Your task to perform on an android device: Search for Mexican restaurants on Maps Image 0: 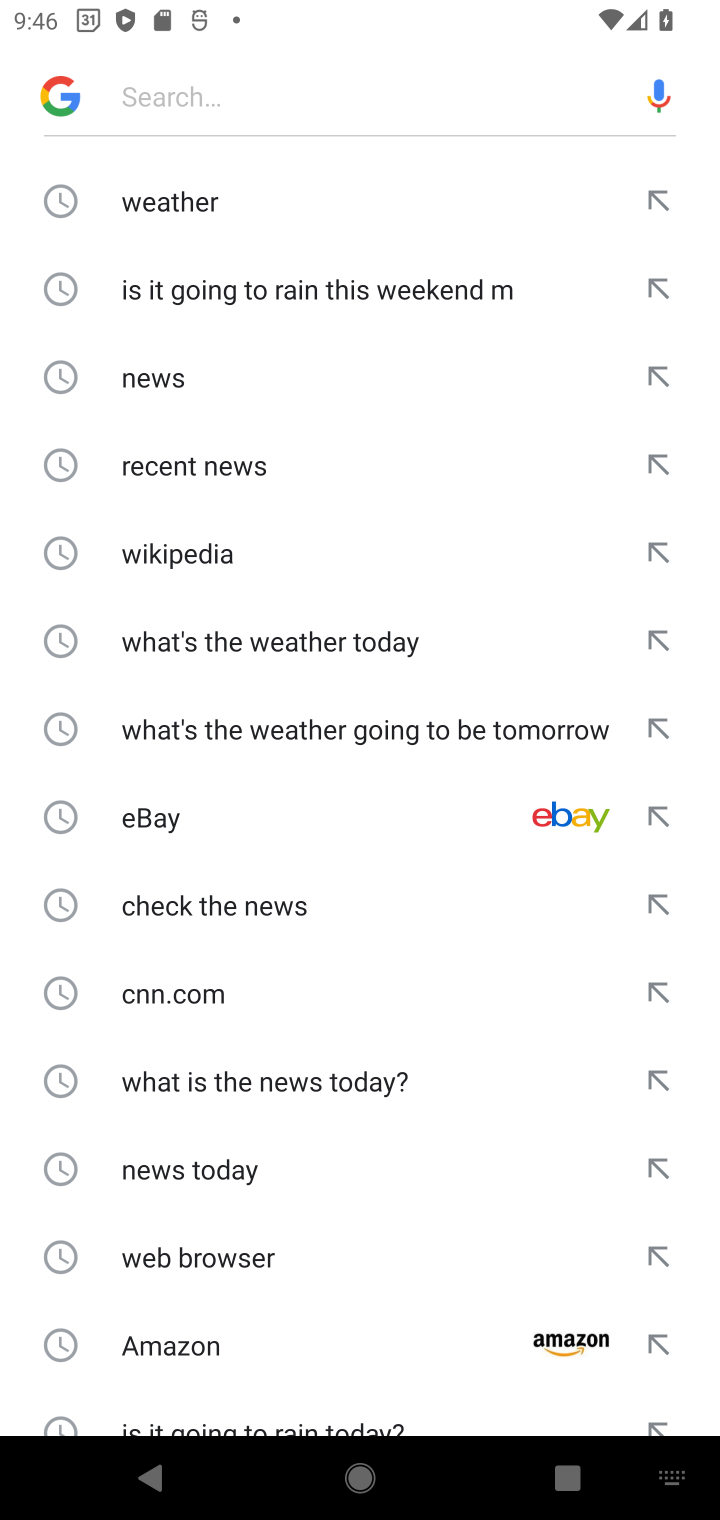
Step 0: press home button
Your task to perform on an android device: Search for Mexican restaurants on Maps Image 1: 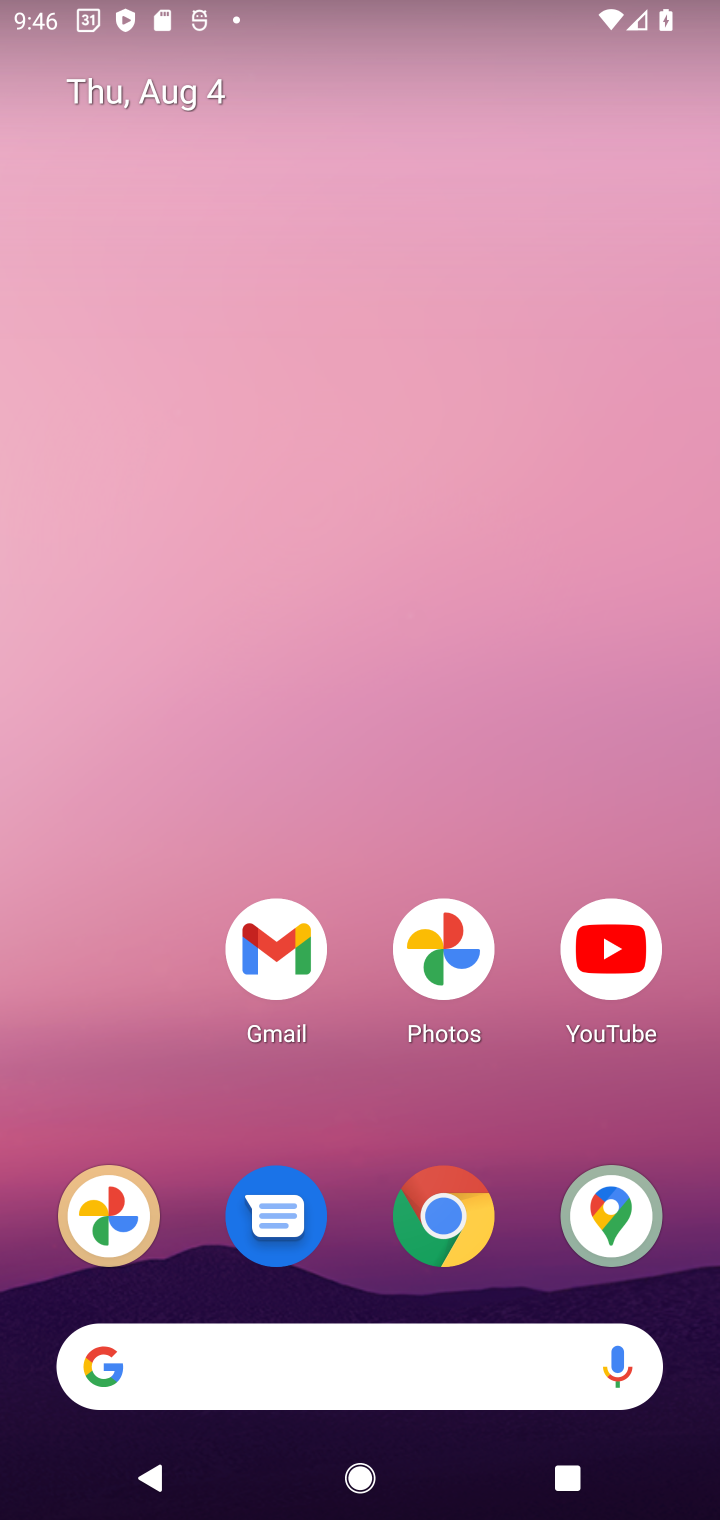
Step 1: drag from (347, 1370) to (450, 86)
Your task to perform on an android device: Search for Mexican restaurants on Maps Image 2: 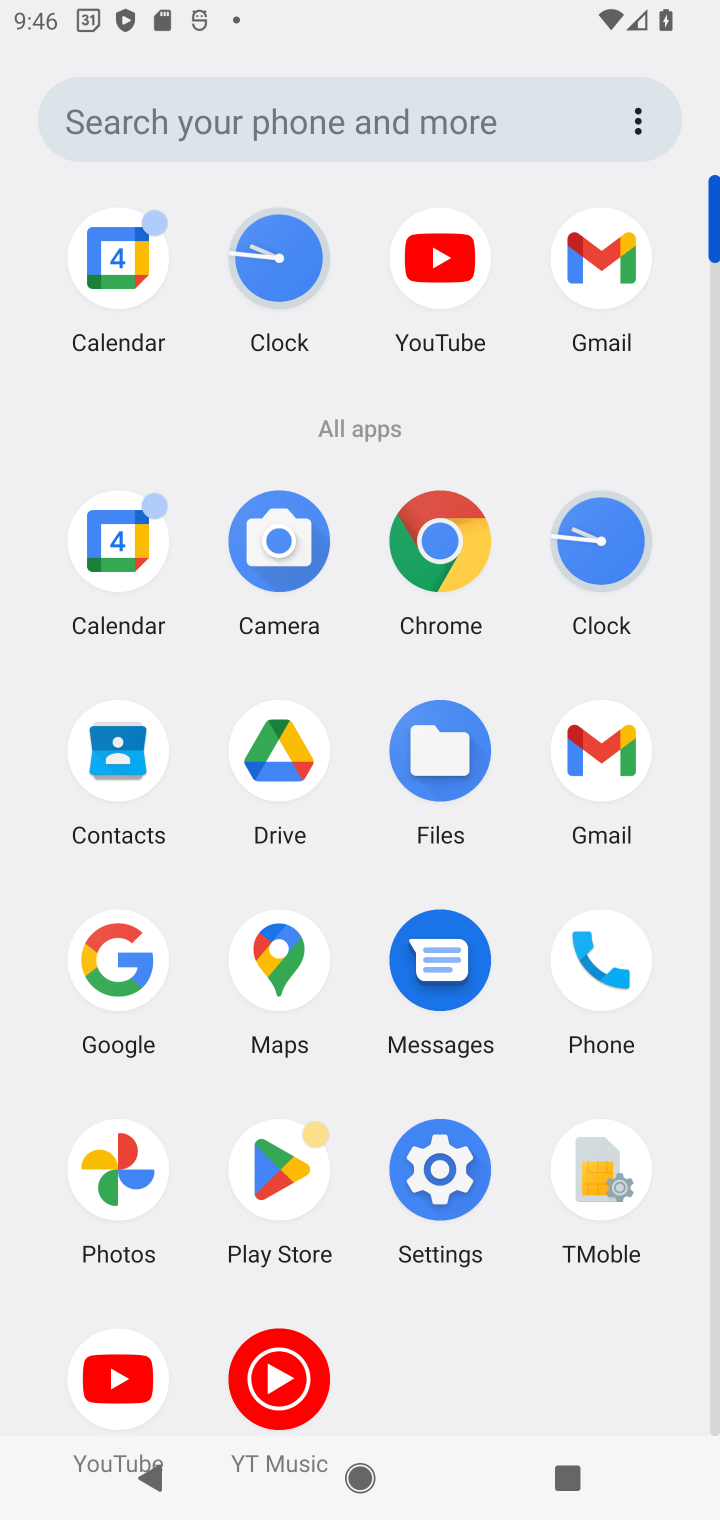
Step 2: click (278, 944)
Your task to perform on an android device: Search for Mexican restaurants on Maps Image 3: 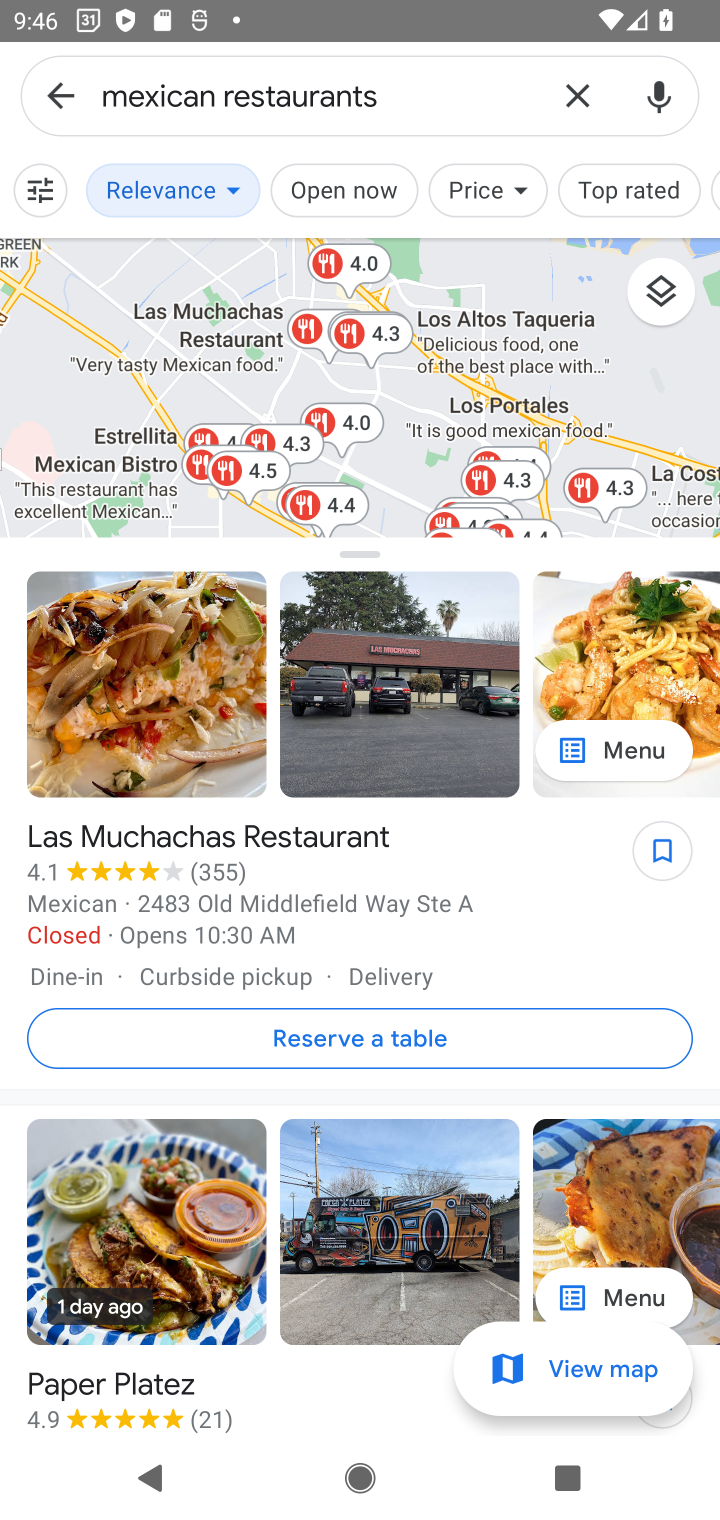
Step 3: drag from (270, 1210) to (520, 557)
Your task to perform on an android device: Search for Mexican restaurants on Maps Image 4: 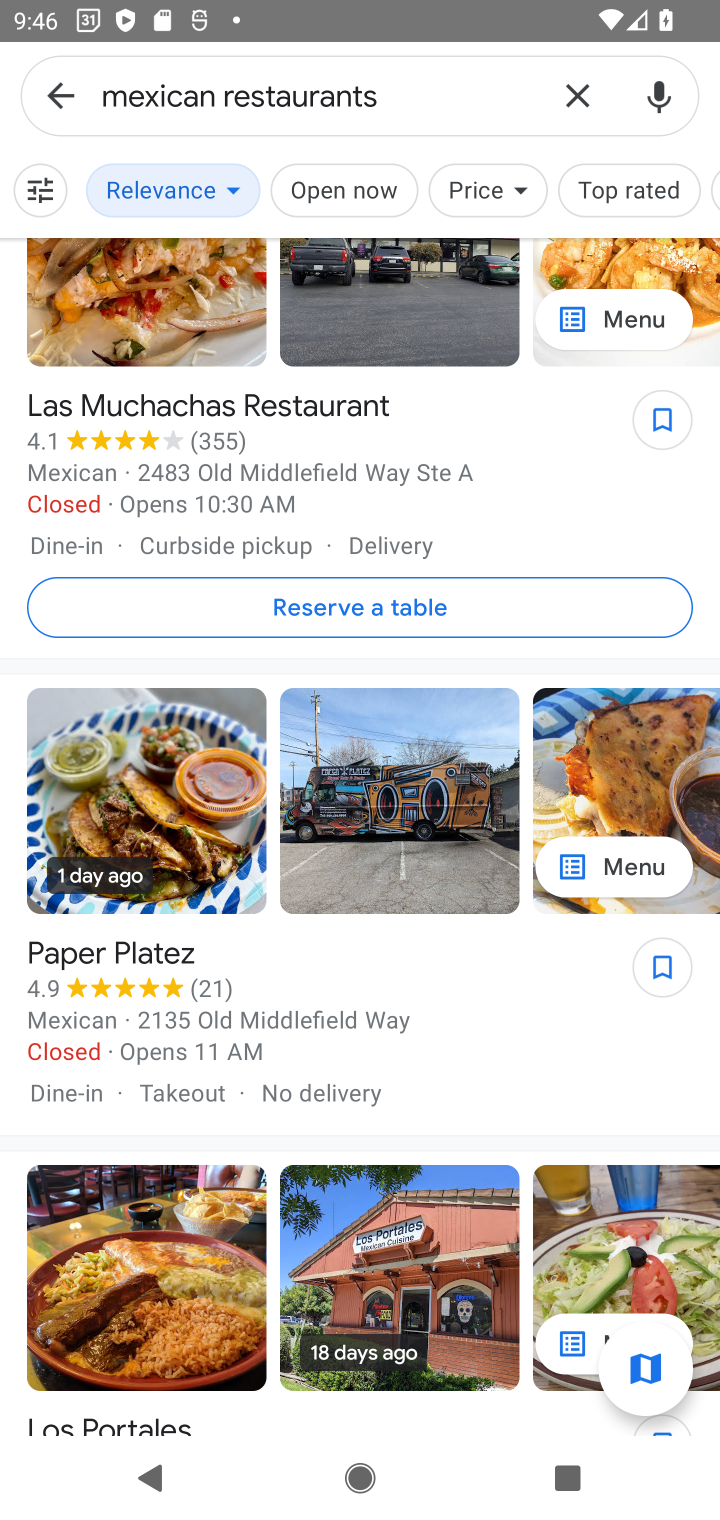
Step 4: click (389, 420)
Your task to perform on an android device: Search for Mexican restaurants on Maps Image 5: 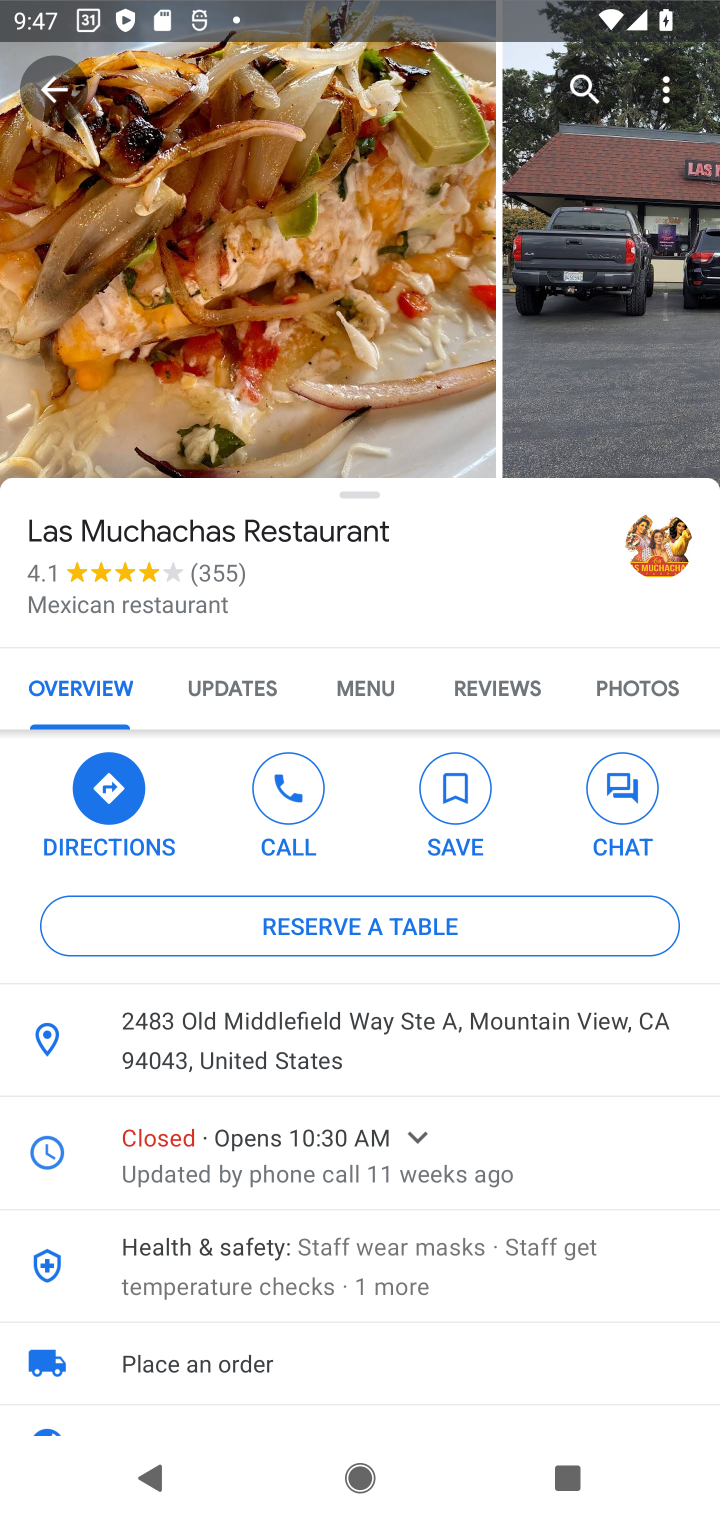
Step 5: task complete